Your task to perform on an android device: Search for Mexican restaurants on Maps Image 0: 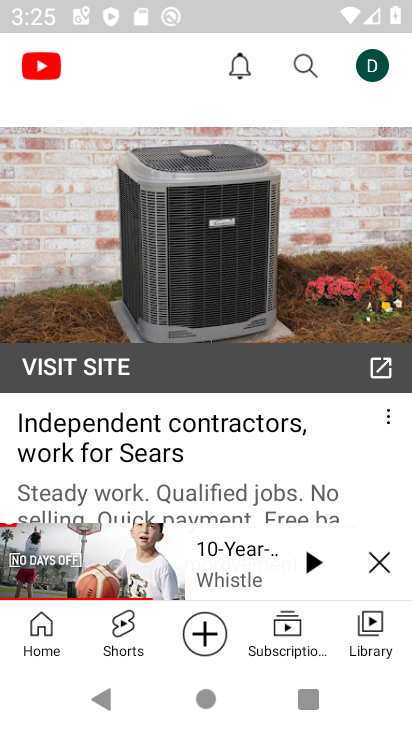
Step 0: press home button
Your task to perform on an android device: Search for Mexican restaurants on Maps Image 1: 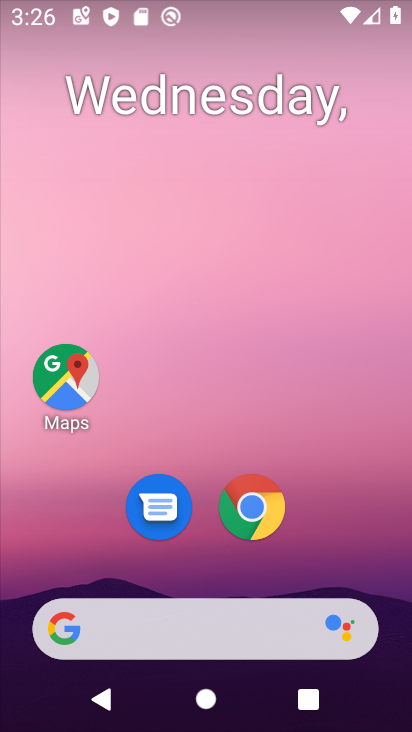
Step 1: click (41, 372)
Your task to perform on an android device: Search for Mexican restaurants on Maps Image 2: 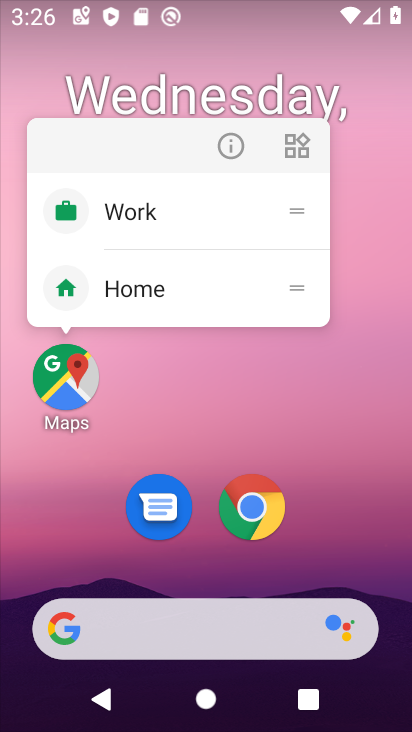
Step 2: click (69, 372)
Your task to perform on an android device: Search for Mexican restaurants on Maps Image 3: 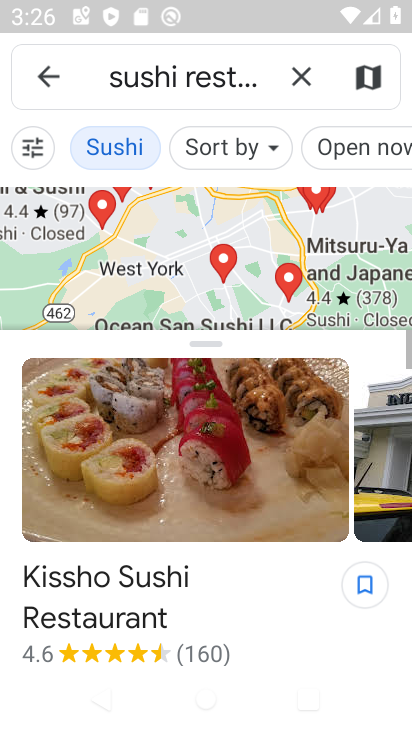
Step 3: click (307, 65)
Your task to perform on an android device: Search for Mexican restaurants on Maps Image 4: 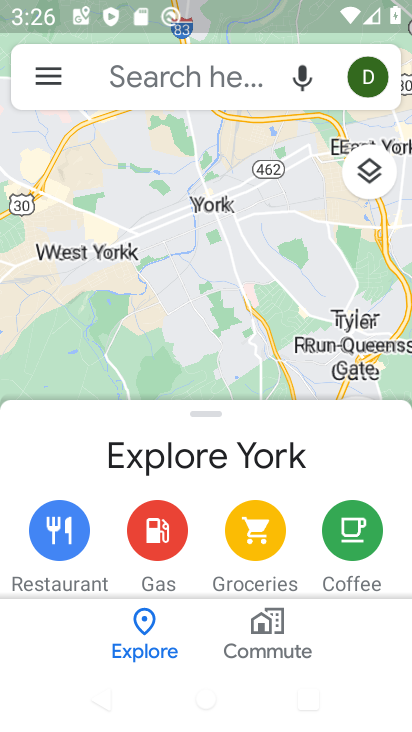
Step 4: click (200, 78)
Your task to perform on an android device: Search for Mexican restaurants on Maps Image 5: 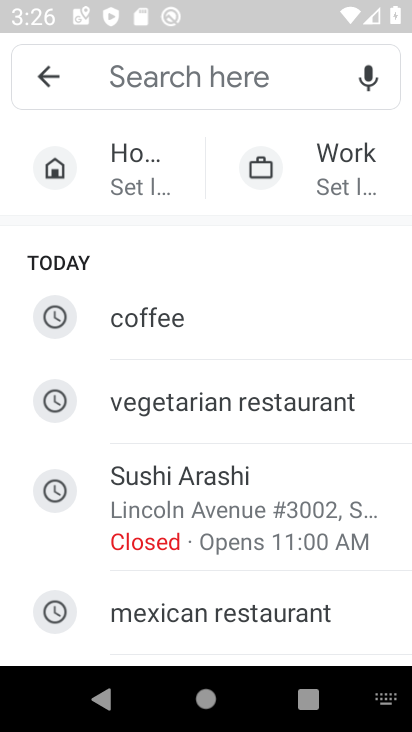
Step 5: click (264, 617)
Your task to perform on an android device: Search for Mexican restaurants on Maps Image 6: 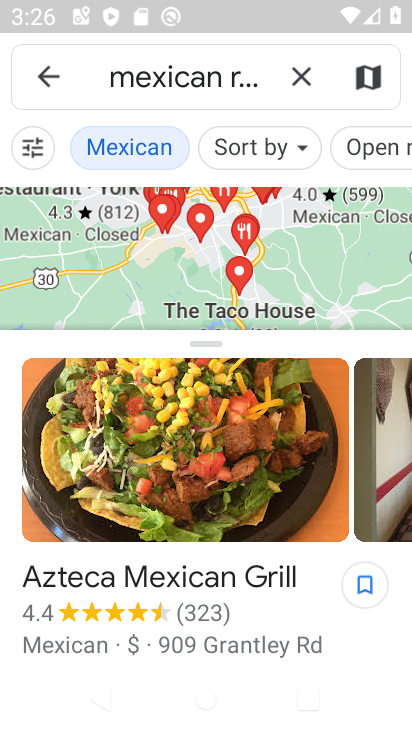
Step 6: task complete